Your task to perform on an android device: turn on wifi Image 0: 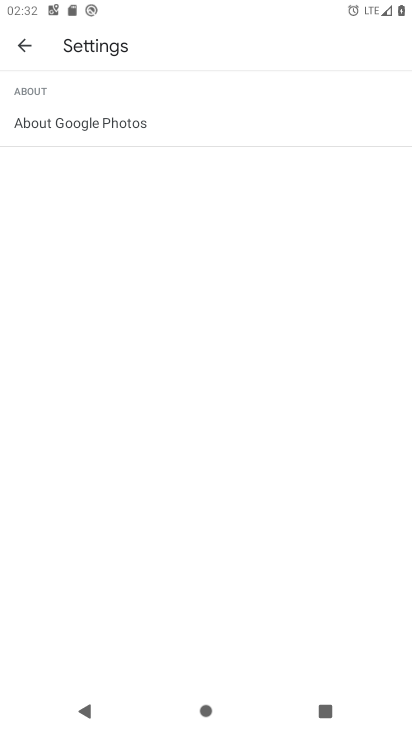
Step 0: press home button
Your task to perform on an android device: turn on wifi Image 1: 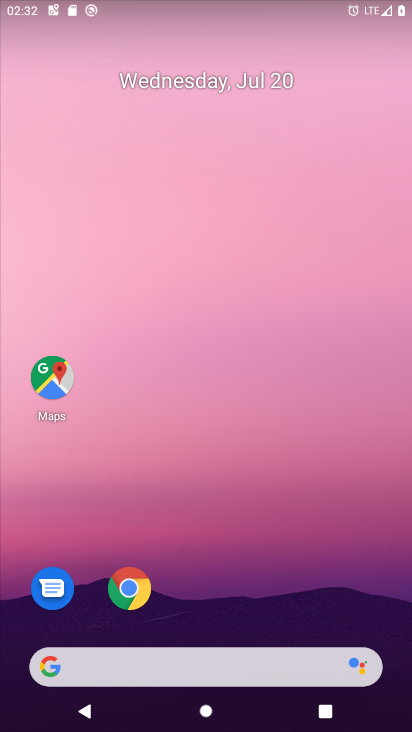
Step 1: drag from (264, 574) to (264, 192)
Your task to perform on an android device: turn on wifi Image 2: 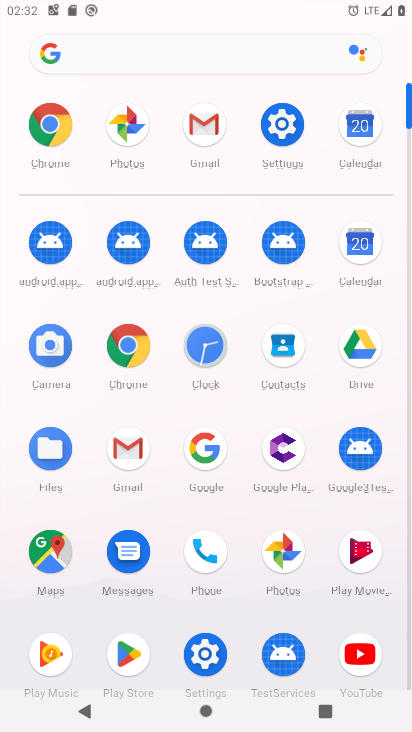
Step 2: click (283, 106)
Your task to perform on an android device: turn on wifi Image 3: 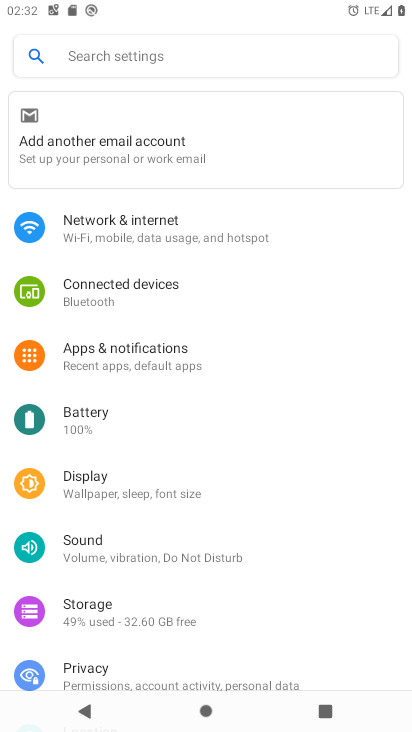
Step 3: click (119, 214)
Your task to perform on an android device: turn on wifi Image 4: 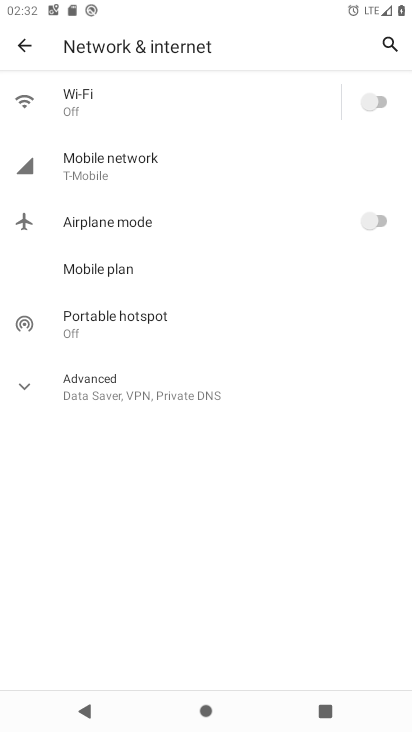
Step 4: click (386, 106)
Your task to perform on an android device: turn on wifi Image 5: 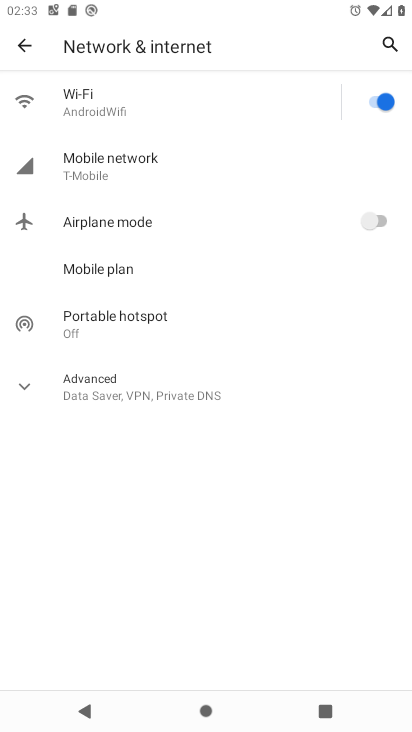
Step 5: task complete